Your task to perform on an android device: remove spam from my inbox in the gmail app Image 0: 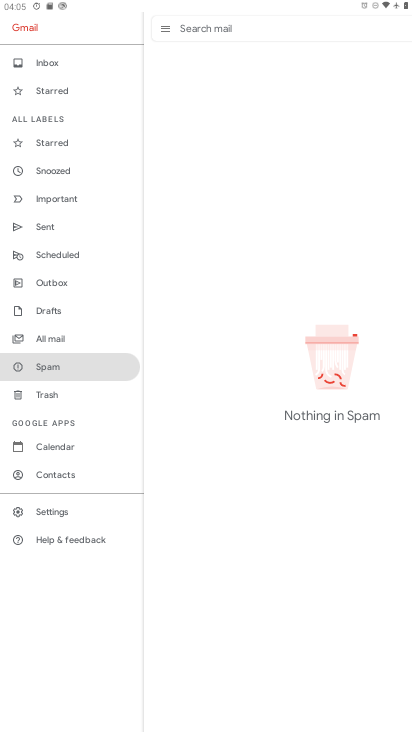
Step 0: press home button
Your task to perform on an android device: remove spam from my inbox in the gmail app Image 1: 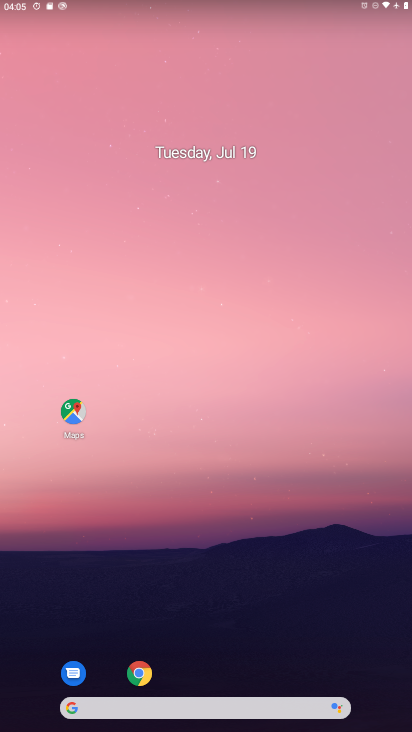
Step 1: drag from (251, 679) to (318, 0)
Your task to perform on an android device: remove spam from my inbox in the gmail app Image 2: 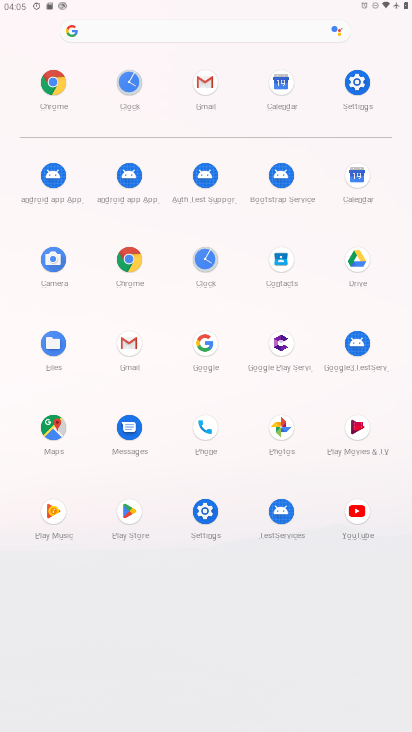
Step 2: click (134, 345)
Your task to perform on an android device: remove spam from my inbox in the gmail app Image 3: 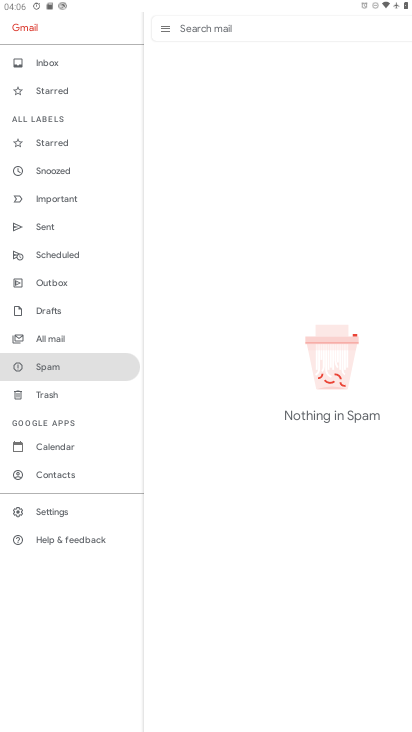
Step 3: click (64, 367)
Your task to perform on an android device: remove spam from my inbox in the gmail app Image 4: 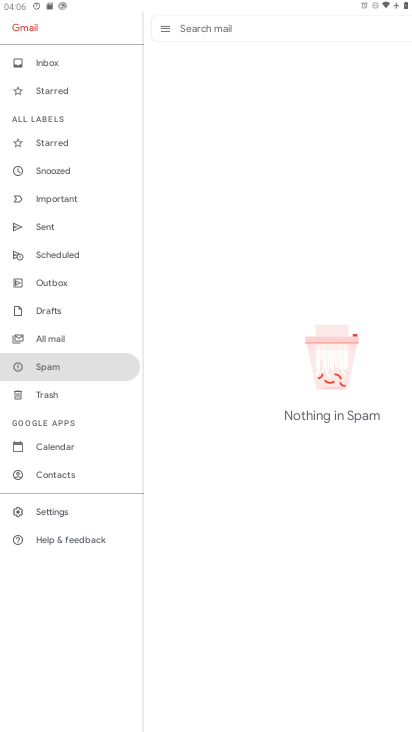
Step 4: task complete